Your task to perform on an android device: Open CNN.com Image 0: 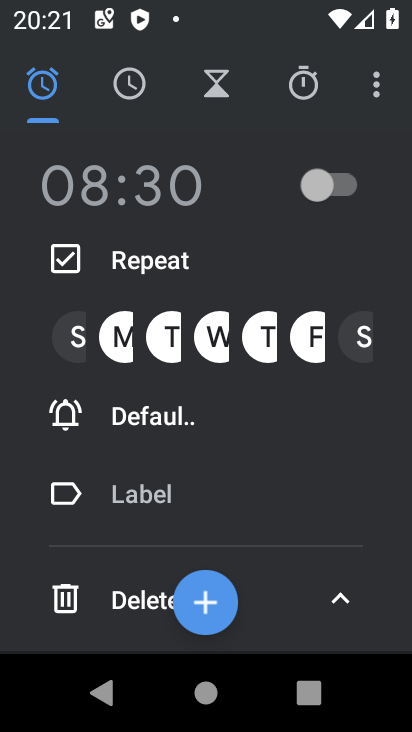
Step 0: press home button
Your task to perform on an android device: Open CNN.com Image 1: 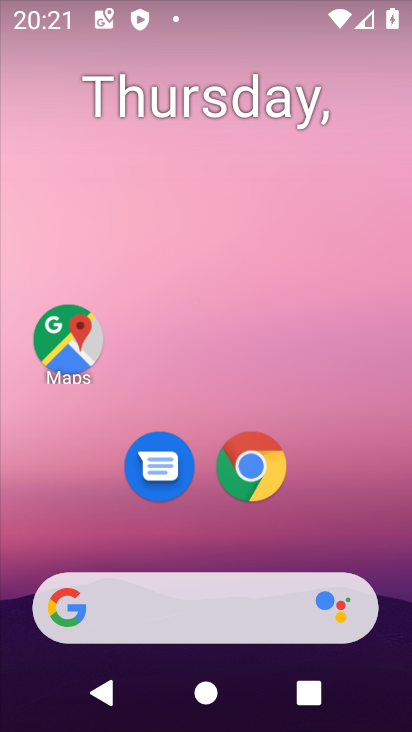
Step 1: click (236, 608)
Your task to perform on an android device: Open CNN.com Image 2: 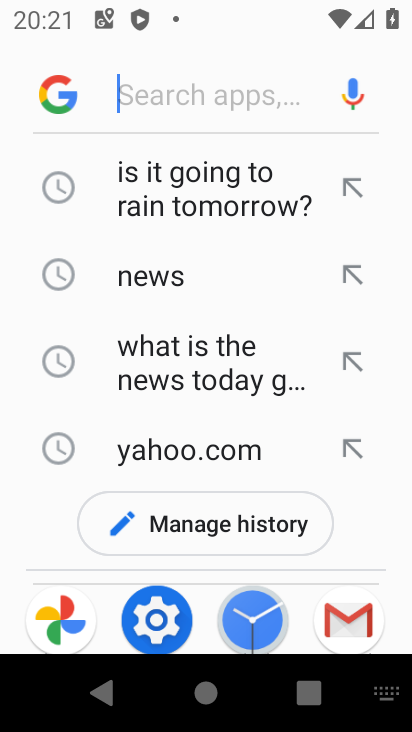
Step 2: type "CNN.com"
Your task to perform on an android device: Open CNN.com Image 3: 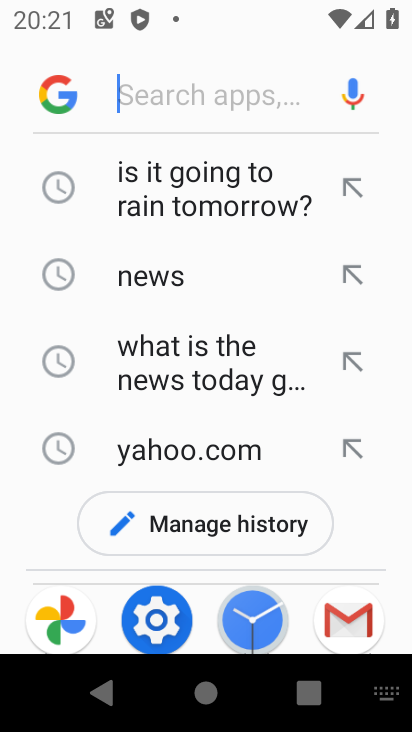
Step 3: click (186, 96)
Your task to perform on an android device: Open CNN.com Image 4: 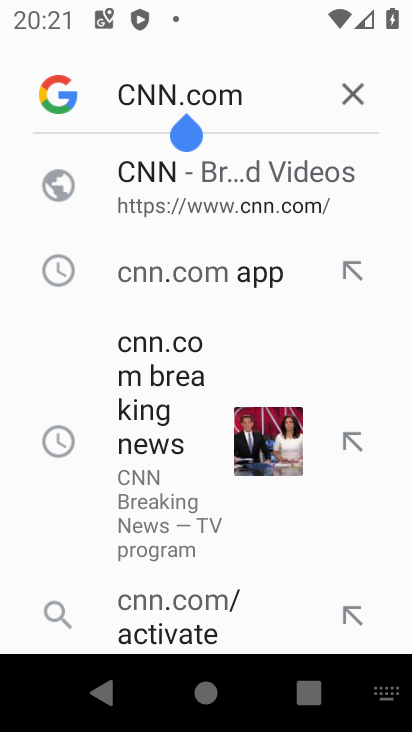
Step 4: click (169, 202)
Your task to perform on an android device: Open CNN.com Image 5: 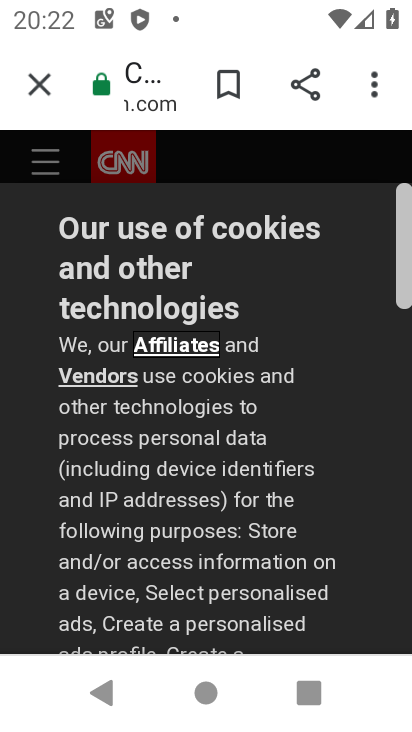
Step 5: task complete